Your task to perform on an android device: change the clock display to show seconds Image 0: 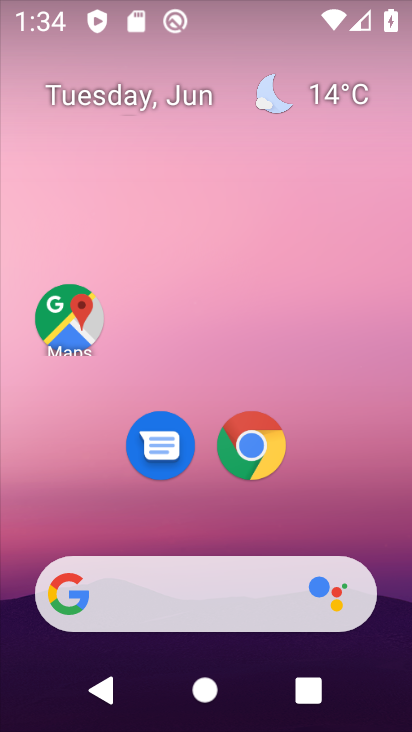
Step 0: press home button
Your task to perform on an android device: change the clock display to show seconds Image 1: 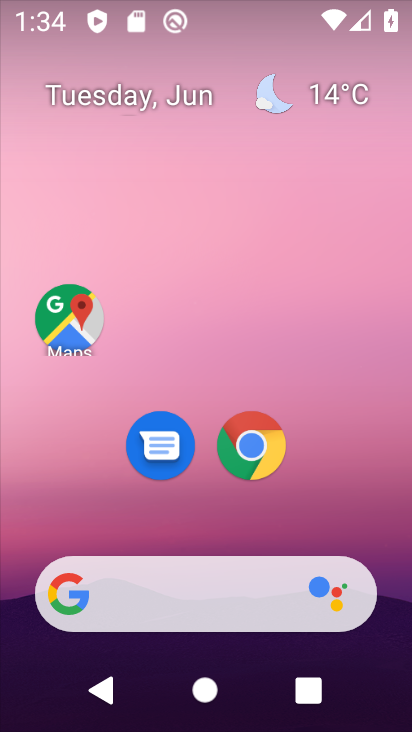
Step 1: drag from (361, 494) to (357, 86)
Your task to perform on an android device: change the clock display to show seconds Image 2: 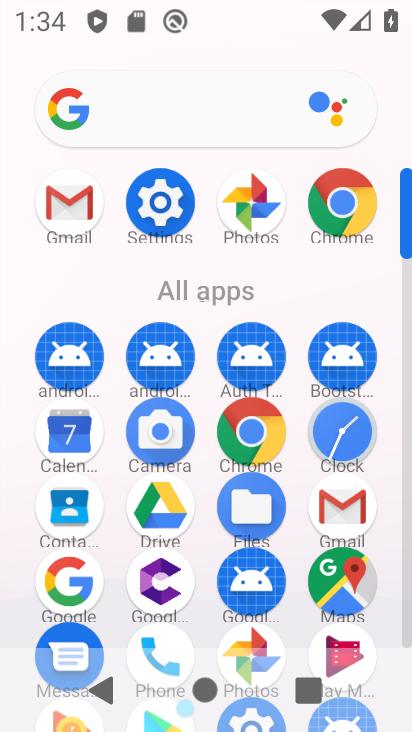
Step 2: click (352, 432)
Your task to perform on an android device: change the clock display to show seconds Image 3: 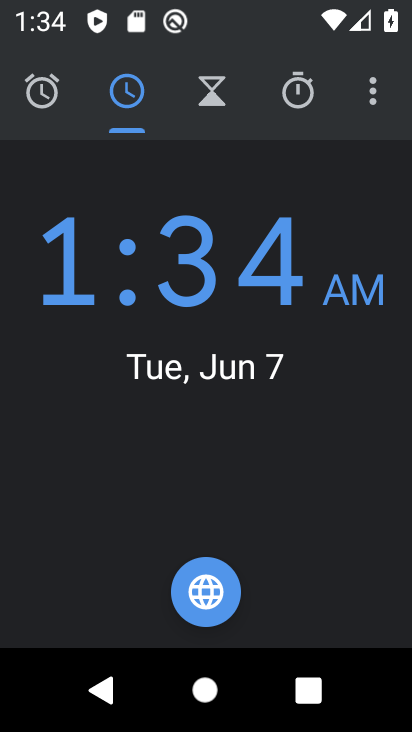
Step 3: drag from (380, 94) to (256, 177)
Your task to perform on an android device: change the clock display to show seconds Image 4: 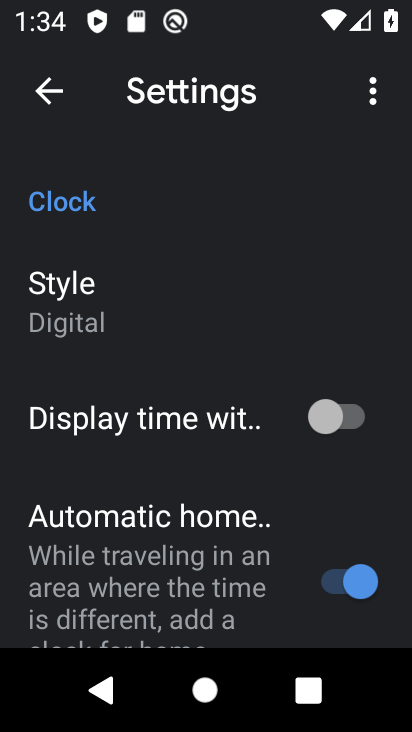
Step 4: click (140, 307)
Your task to perform on an android device: change the clock display to show seconds Image 5: 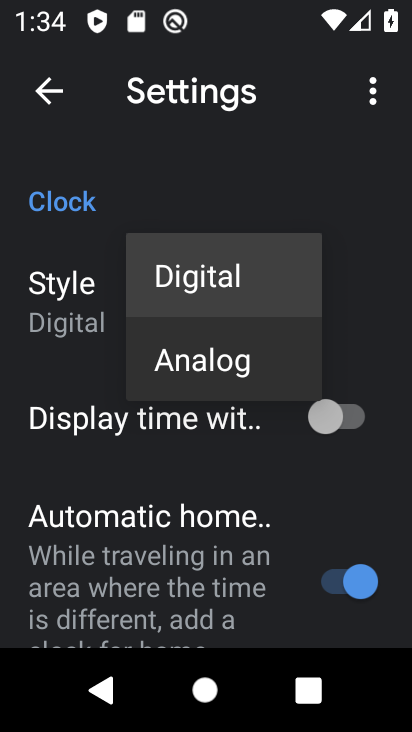
Step 5: click (182, 374)
Your task to perform on an android device: change the clock display to show seconds Image 6: 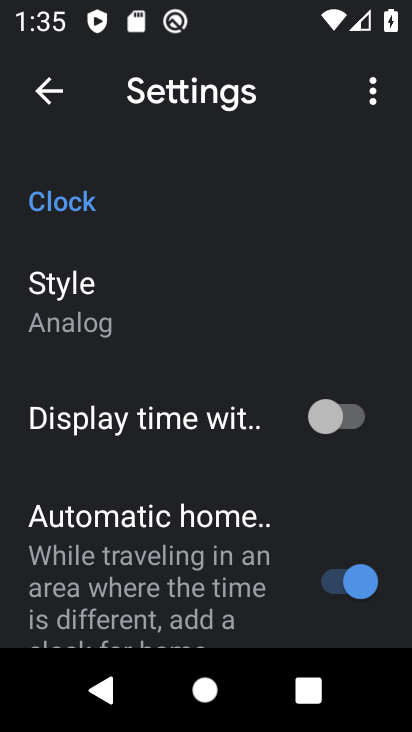
Step 6: task complete